Your task to perform on an android device: Open the phone app and click the voicemail tab. Image 0: 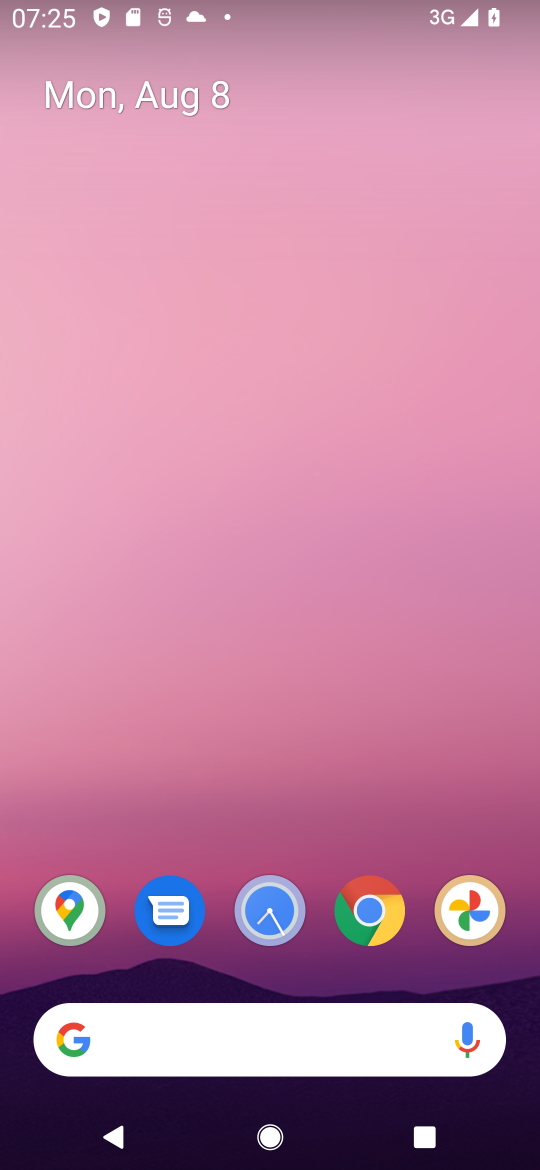
Step 0: drag from (231, 1043) to (535, 330)
Your task to perform on an android device: Open the phone app and click the voicemail tab. Image 1: 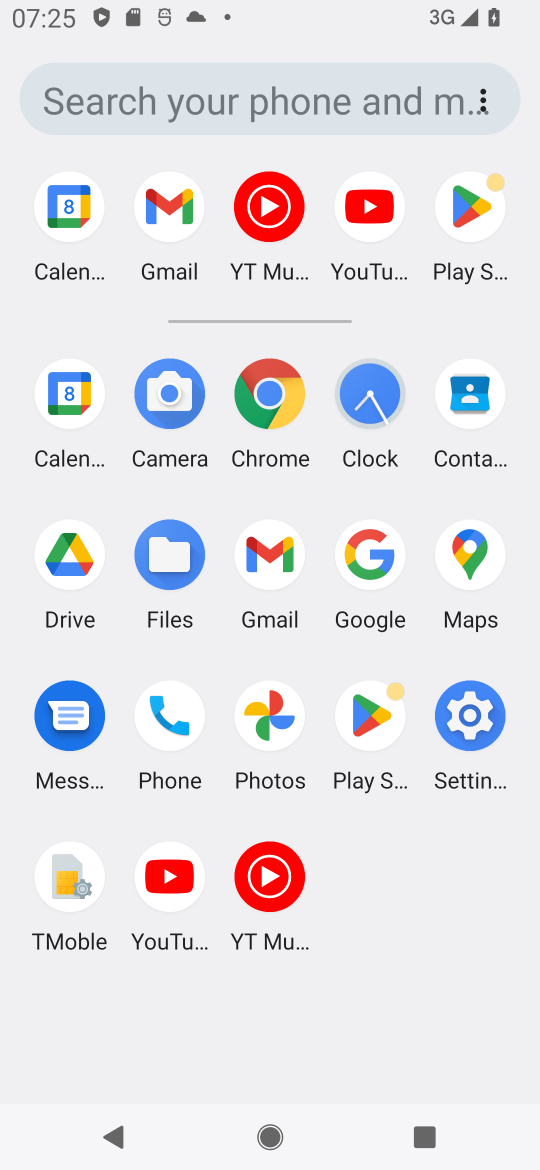
Step 1: click (162, 717)
Your task to perform on an android device: Open the phone app and click the voicemail tab. Image 2: 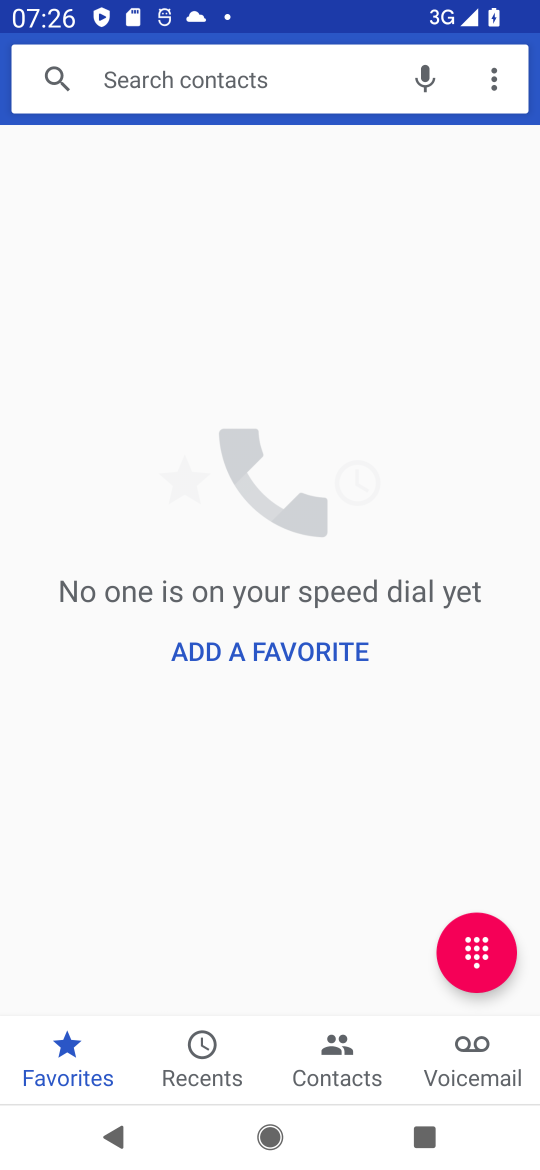
Step 2: click (473, 1038)
Your task to perform on an android device: Open the phone app and click the voicemail tab. Image 3: 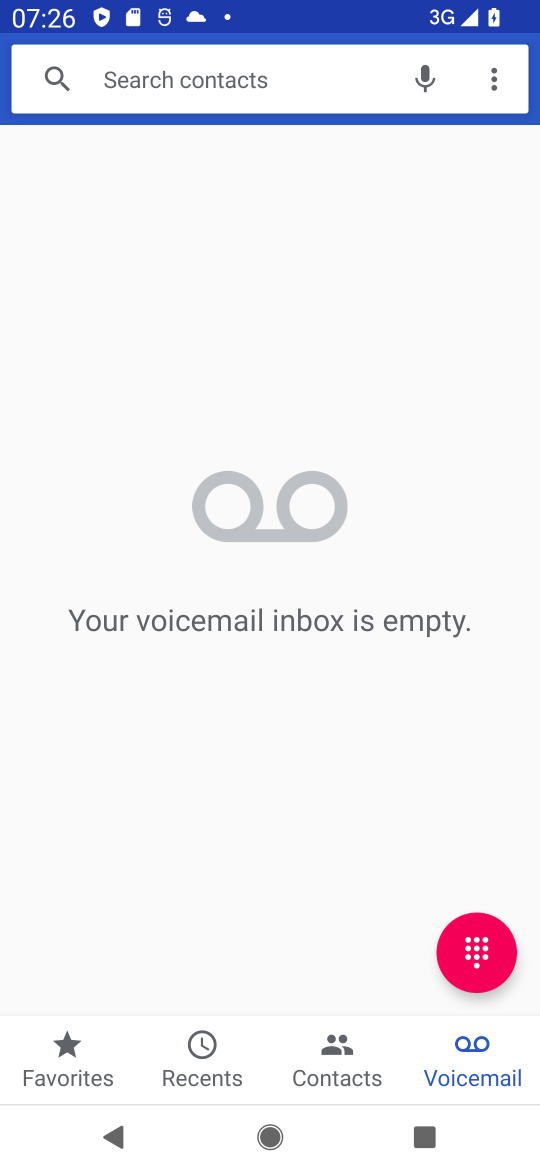
Step 3: task complete